Your task to perform on an android device: Add "razer huntsman" to the cart on walmart.com Image 0: 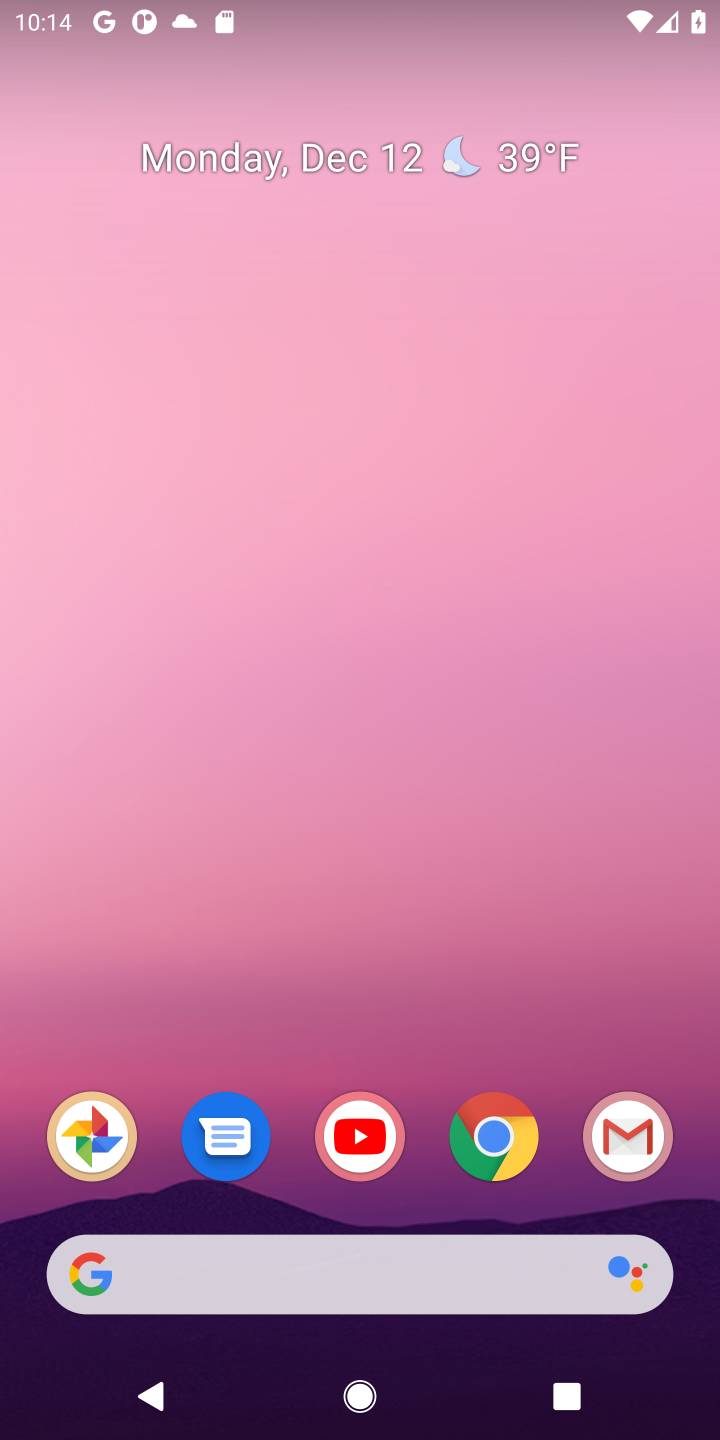
Step 0: click (501, 1141)
Your task to perform on an android device: Add "razer huntsman" to the cart on walmart.com Image 1: 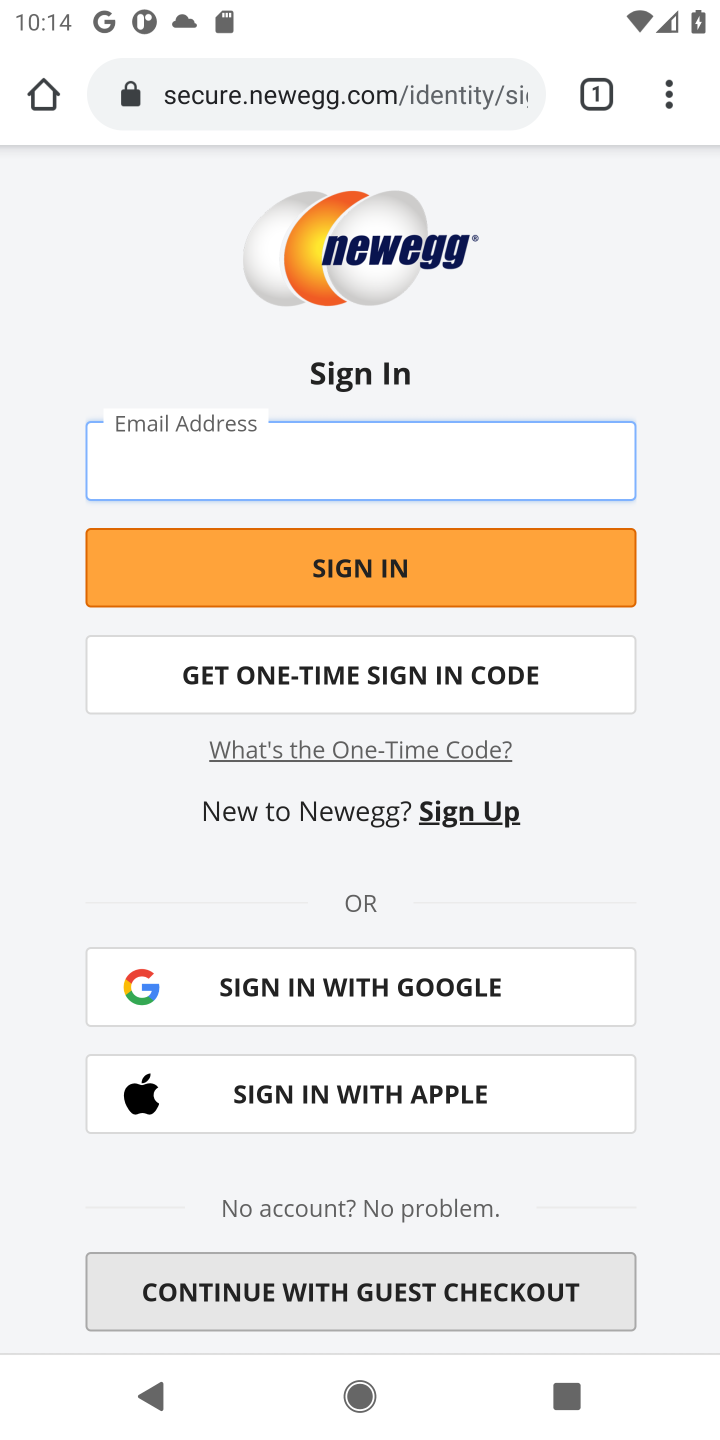
Step 1: click (287, 92)
Your task to perform on an android device: Add "razer huntsman" to the cart on walmart.com Image 2: 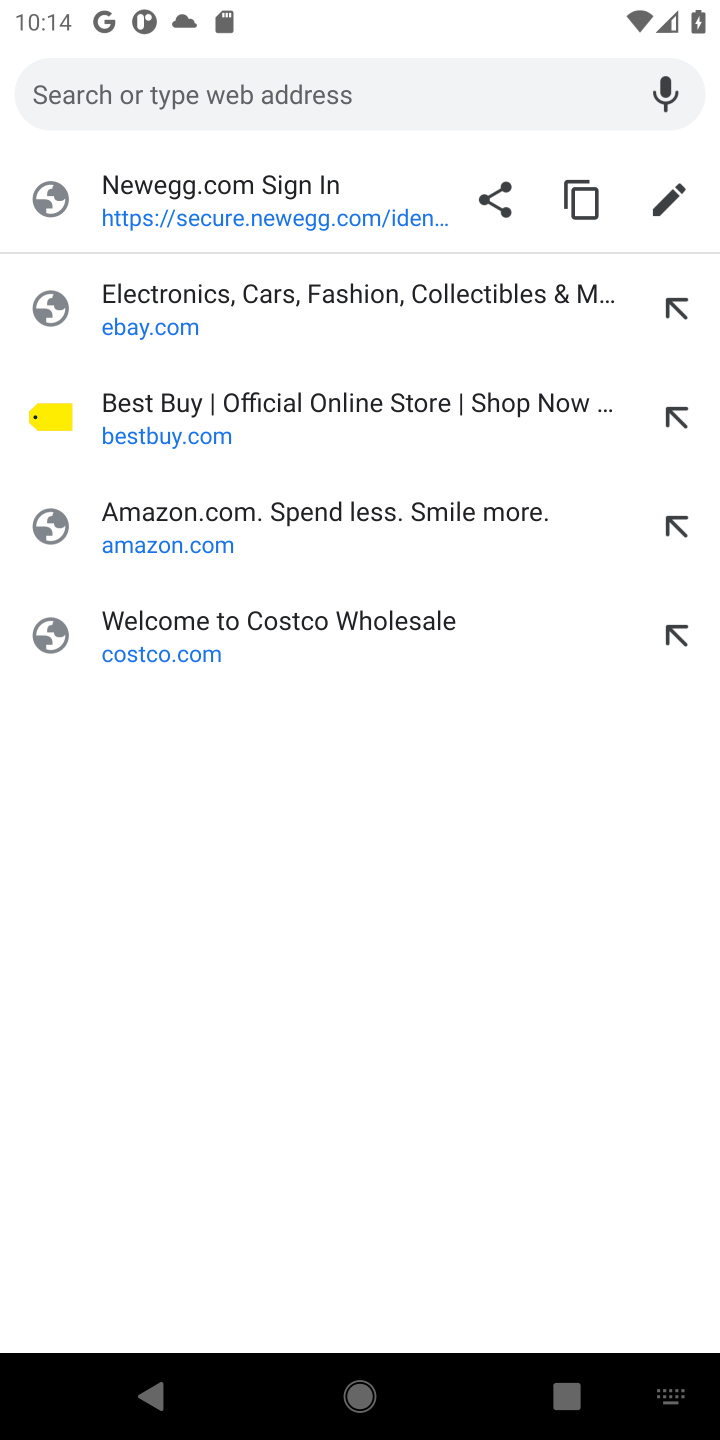
Step 2: type "walmart.com"
Your task to perform on an android device: Add "razer huntsman" to the cart on walmart.com Image 3: 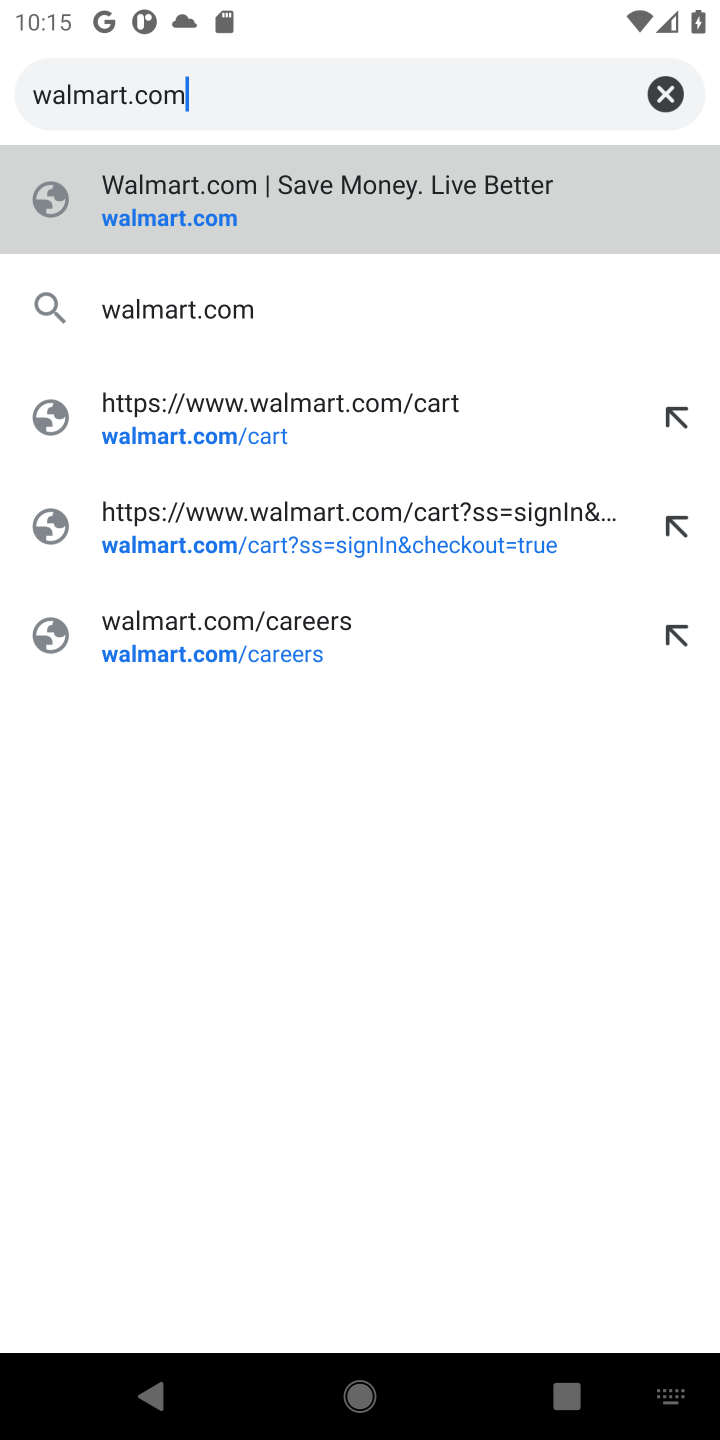
Step 3: click (118, 218)
Your task to perform on an android device: Add "razer huntsman" to the cart on walmart.com Image 4: 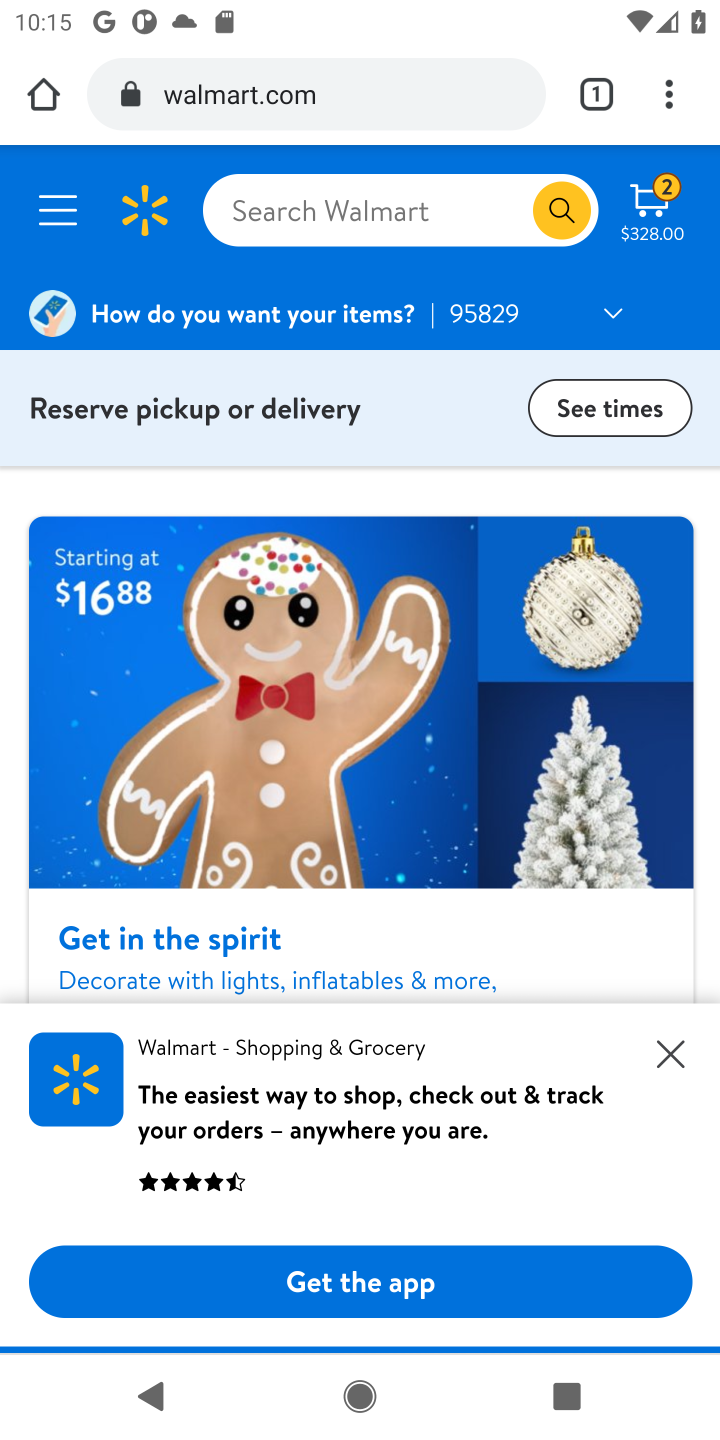
Step 4: click (267, 210)
Your task to perform on an android device: Add "razer huntsman" to the cart on walmart.com Image 5: 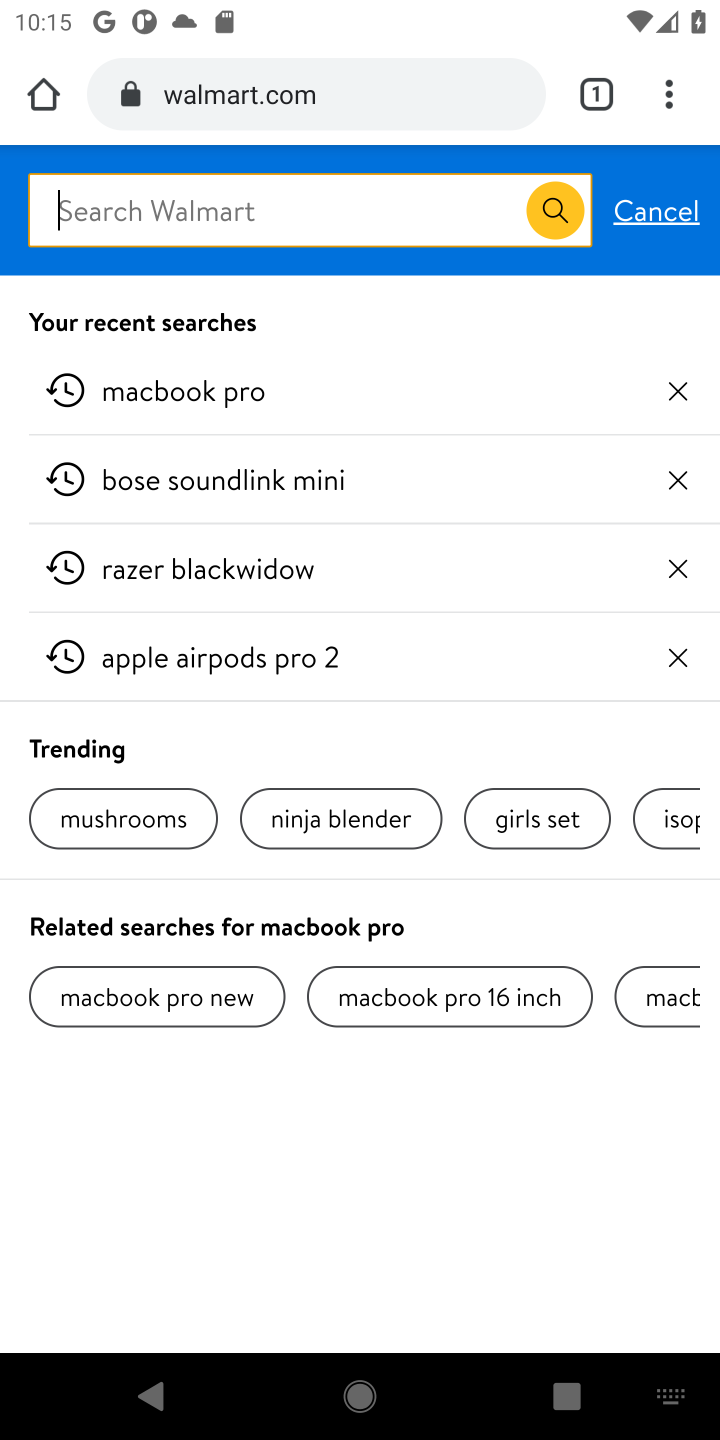
Step 5: type "razer huntsman"
Your task to perform on an android device: Add "razer huntsman" to the cart on walmart.com Image 6: 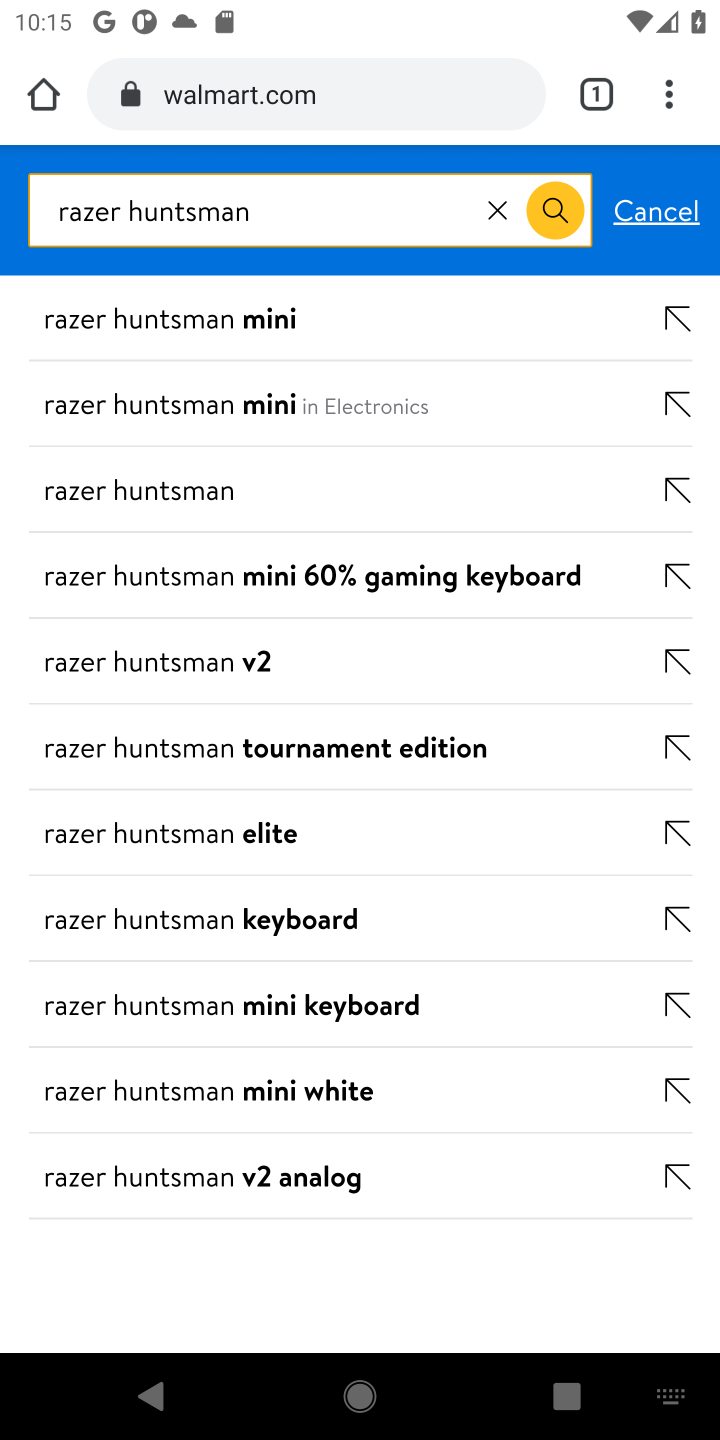
Step 6: click (187, 489)
Your task to perform on an android device: Add "razer huntsman" to the cart on walmart.com Image 7: 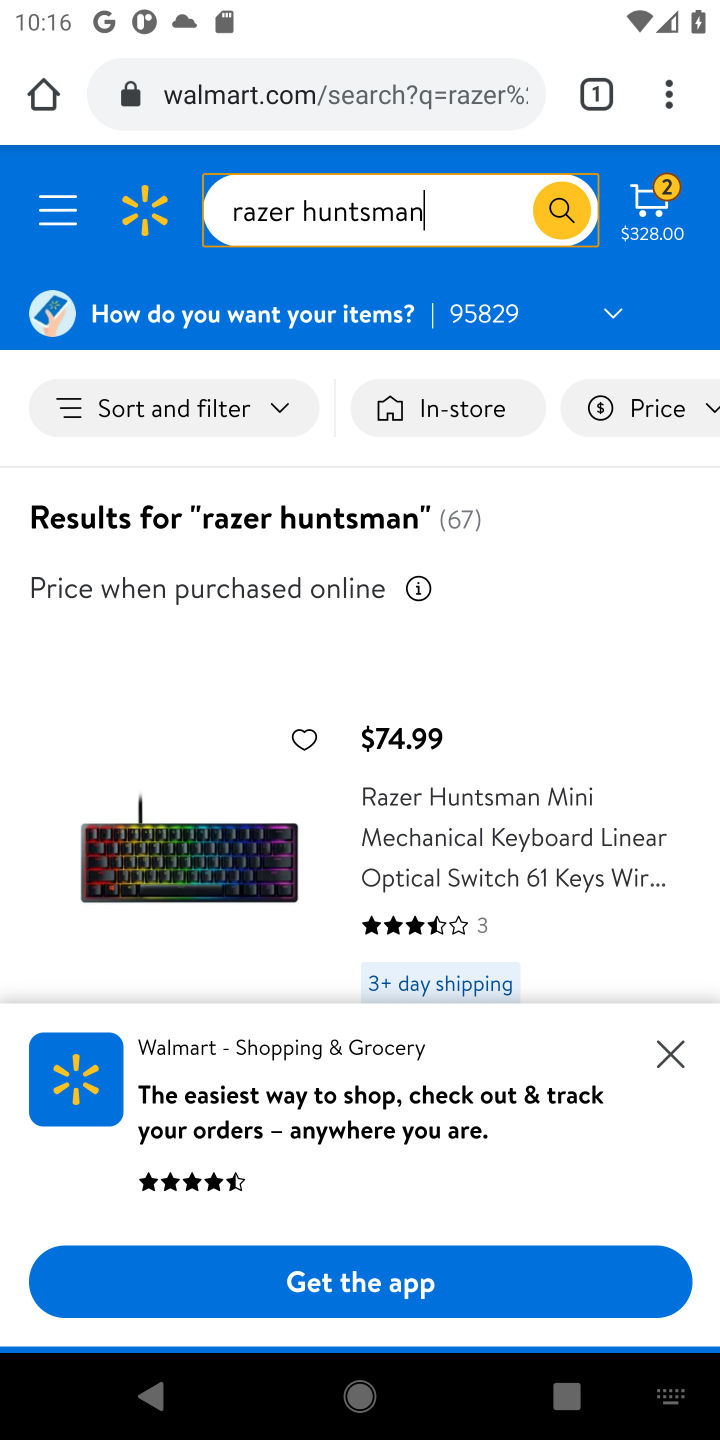
Step 7: drag from (331, 725) to (324, 441)
Your task to perform on an android device: Add "razer huntsman" to the cart on walmart.com Image 8: 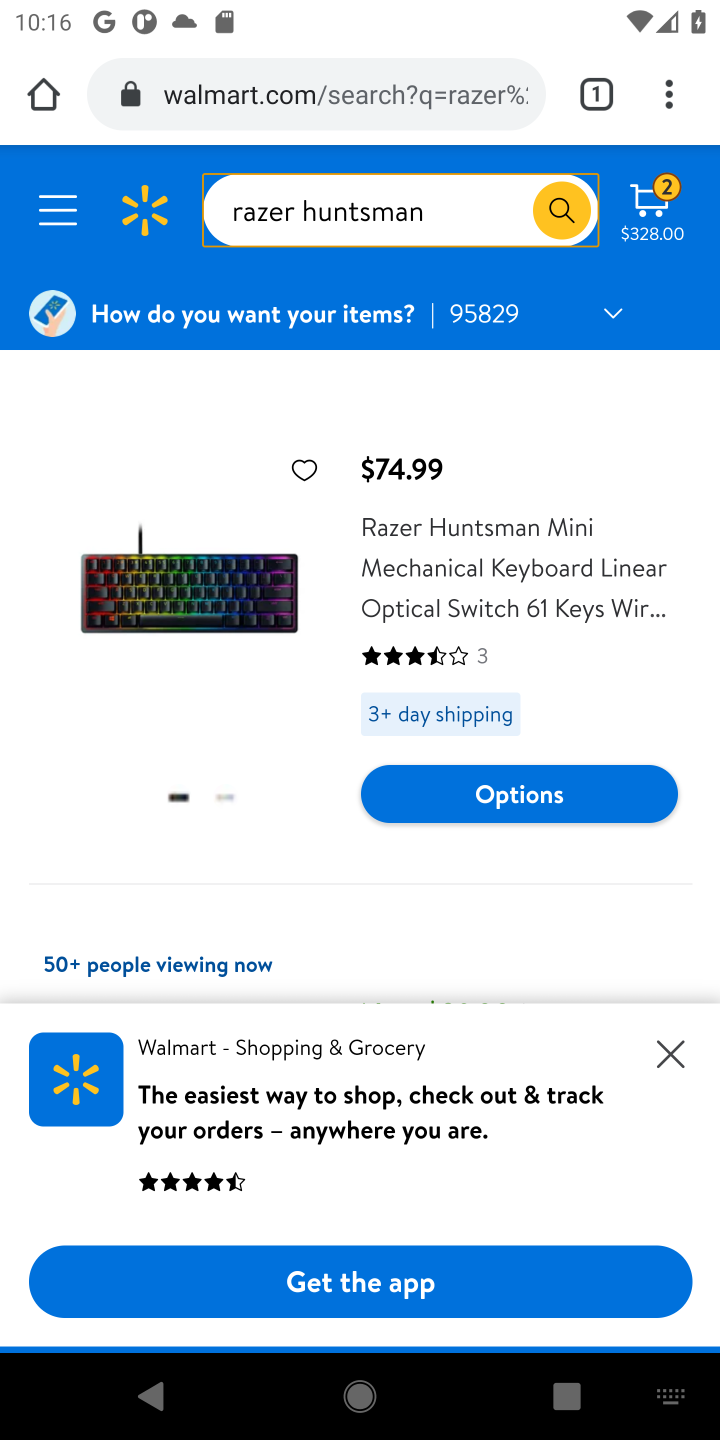
Step 8: click (510, 570)
Your task to perform on an android device: Add "razer huntsman" to the cart on walmart.com Image 9: 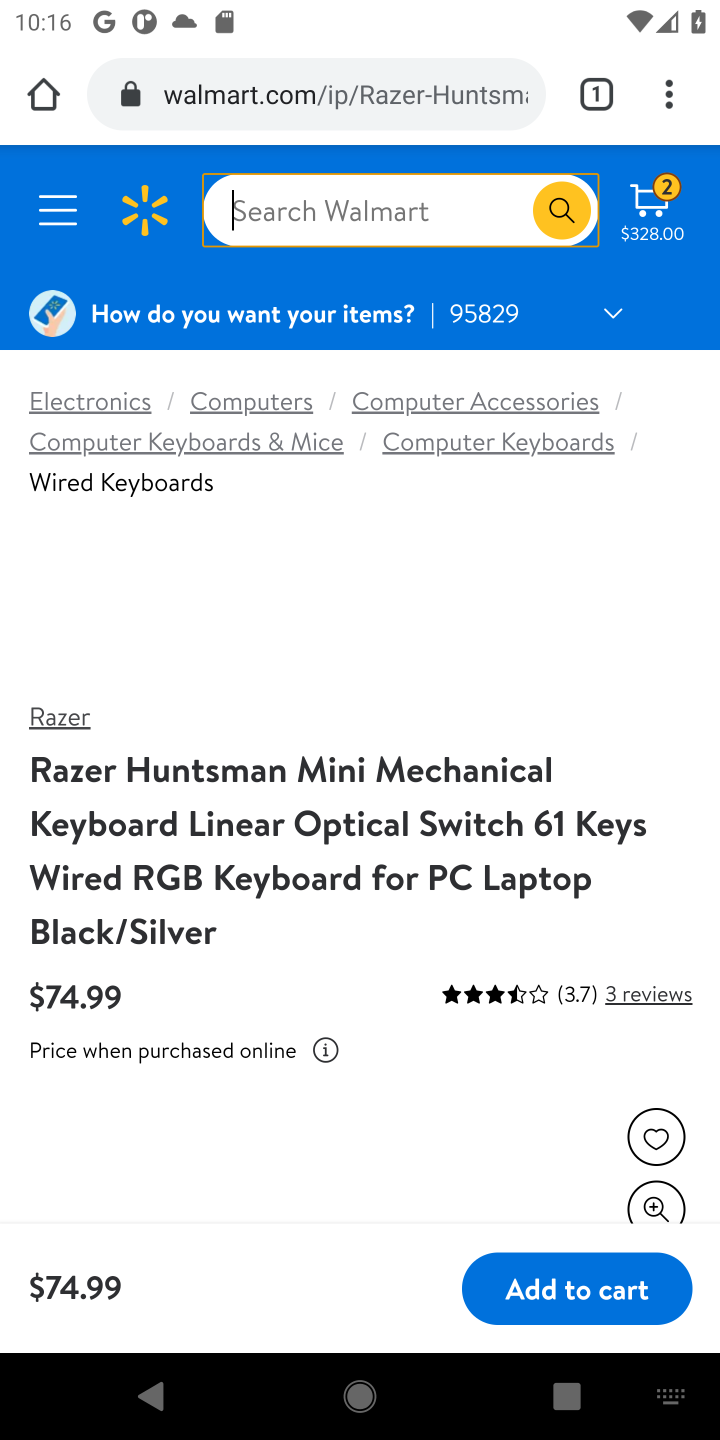
Step 9: click (557, 1317)
Your task to perform on an android device: Add "razer huntsman" to the cart on walmart.com Image 10: 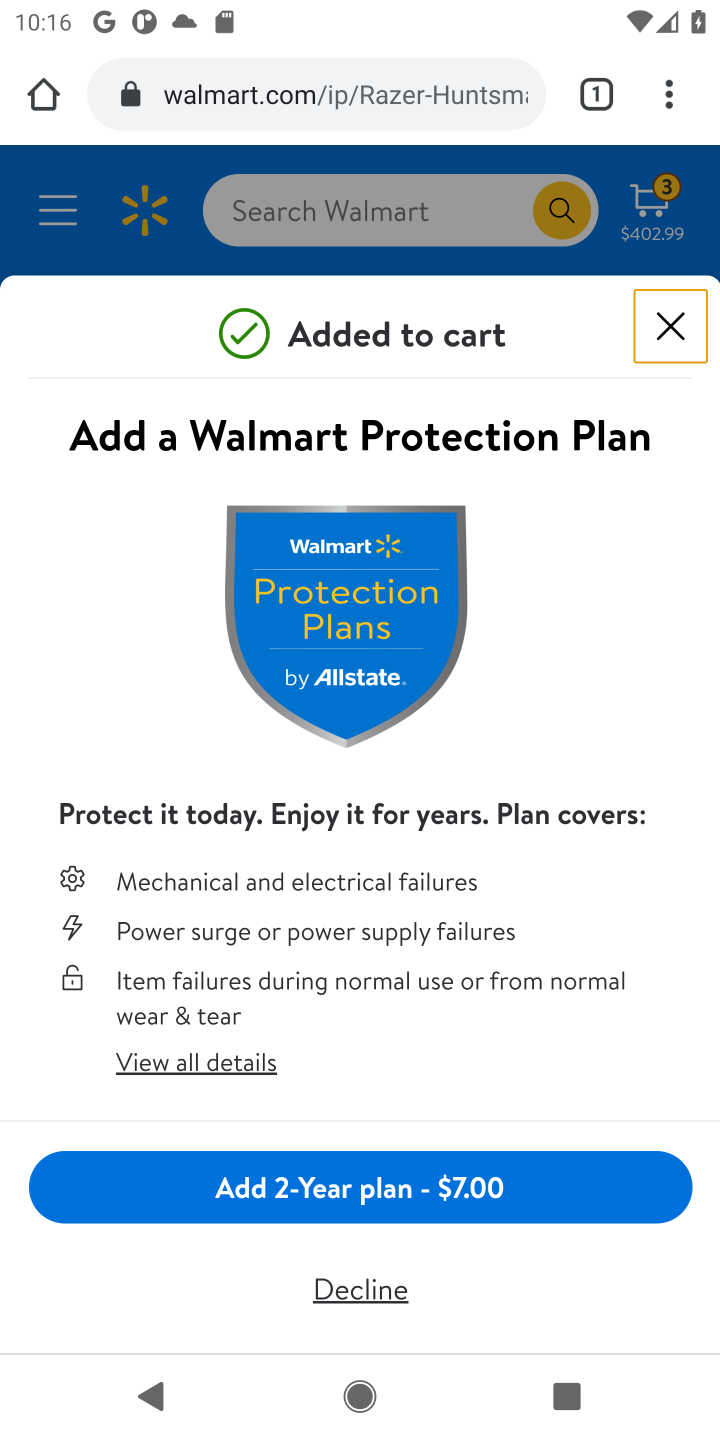
Step 10: task complete